Your task to perform on an android device: check battery use Image 0: 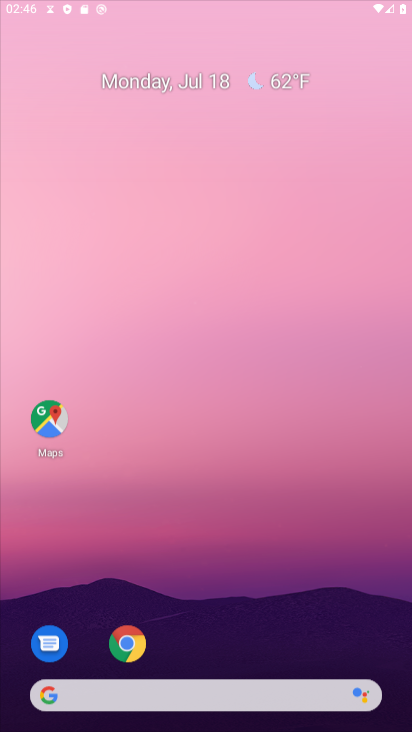
Step 0: press back button
Your task to perform on an android device: check battery use Image 1: 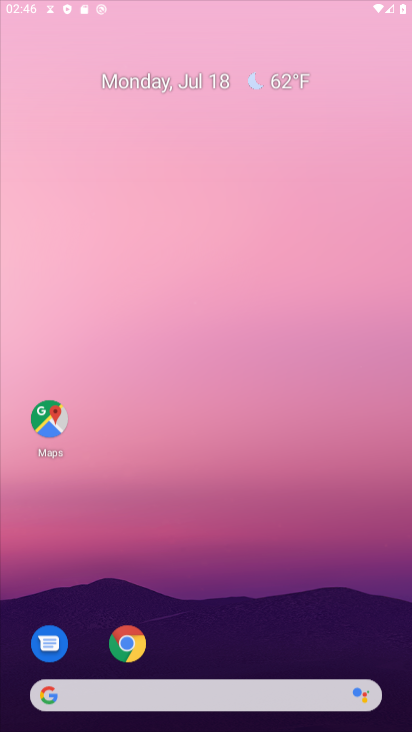
Step 1: click (185, 168)
Your task to perform on an android device: check battery use Image 2: 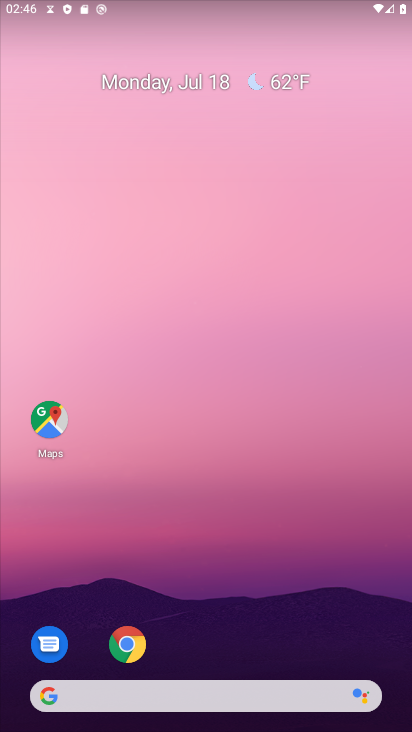
Step 2: drag from (191, 629) to (150, 109)
Your task to perform on an android device: check battery use Image 3: 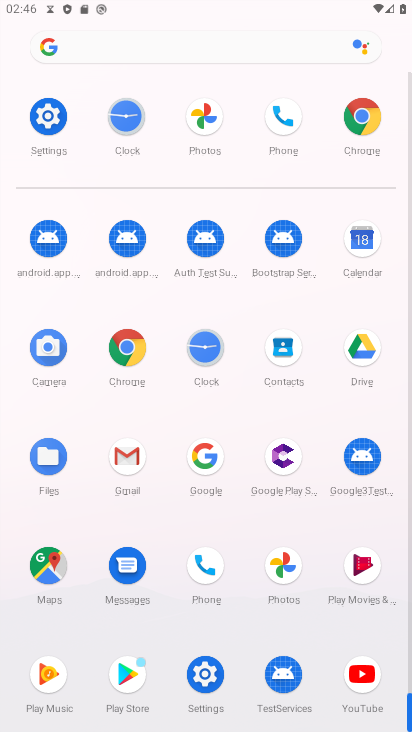
Step 3: drag from (199, 482) to (209, 57)
Your task to perform on an android device: check battery use Image 4: 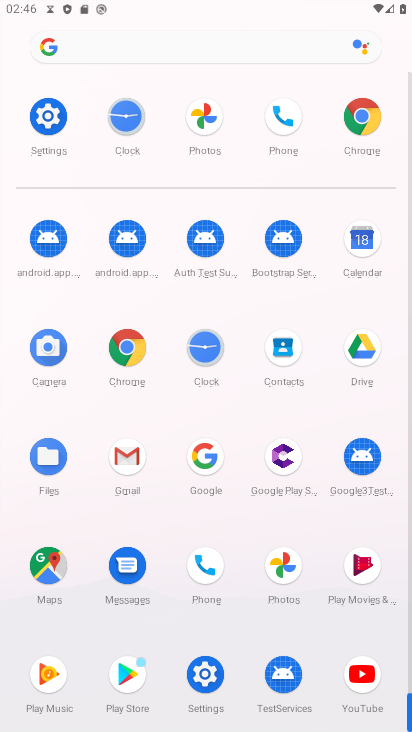
Step 4: click (43, 111)
Your task to perform on an android device: check battery use Image 5: 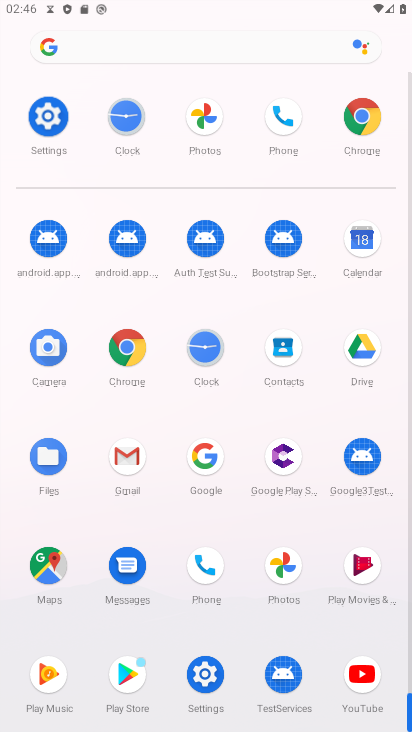
Step 5: click (51, 107)
Your task to perform on an android device: check battery use Image 6: 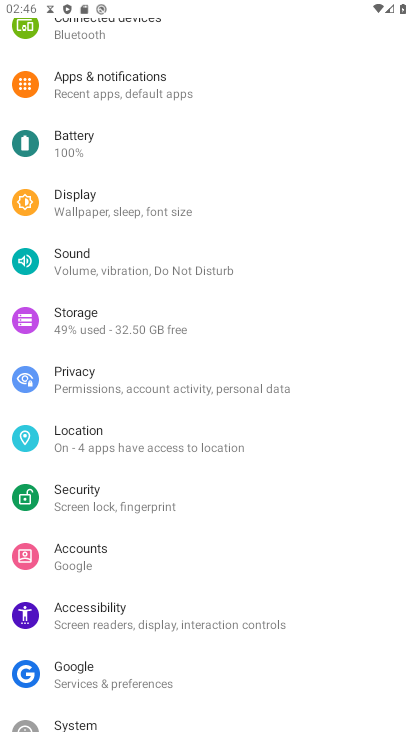
Step 6: click (58, 127)
Your task to perform on an android device: check battery use Image 7: 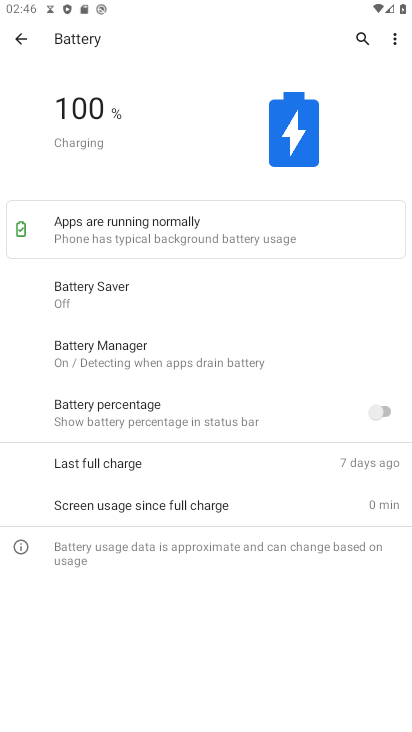
Step 7: task complete